Your task to perform on an android device: Go to privacy settings Image 0: 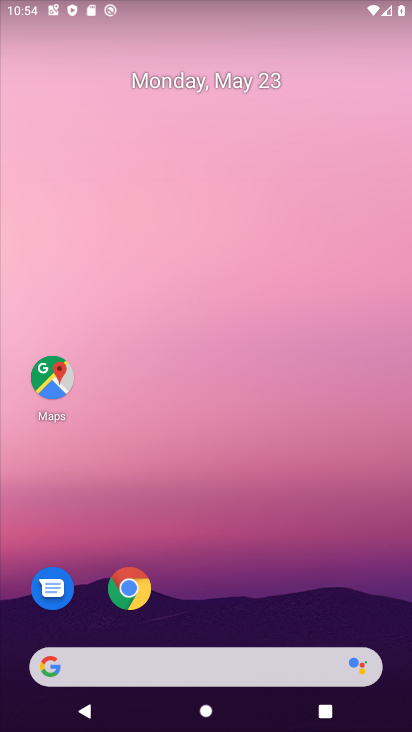
Step 0: drag from (258, 447) to (228, 141)
Your task to perform on an android device: Go to privacy settings Image 1: 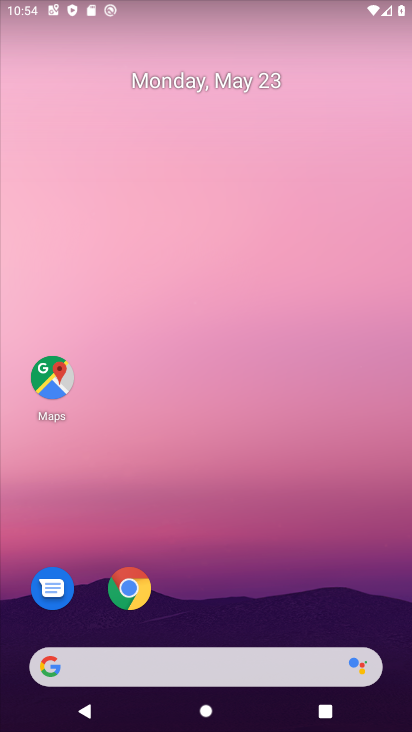
Step 1: drag from (272, 601) to (240, 169)
Your task to perform on an android device: Go to privacy settings Image 2: 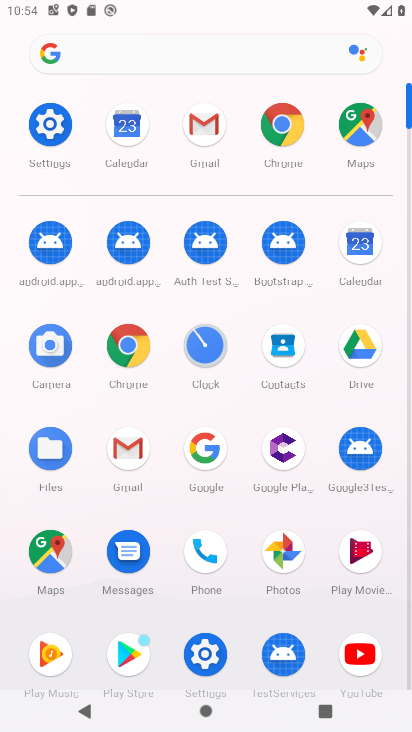
Step 2: click (49, 125)
Your task to perform on an android device: Go to privacy settings Image 3: 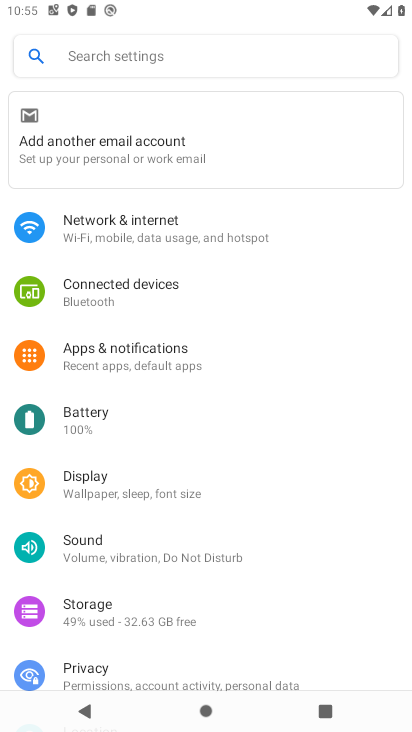
Step 3: drag from (224, 569) to (240, 179)
Your task to perform on an android device: Go to privacy settings Image 4: 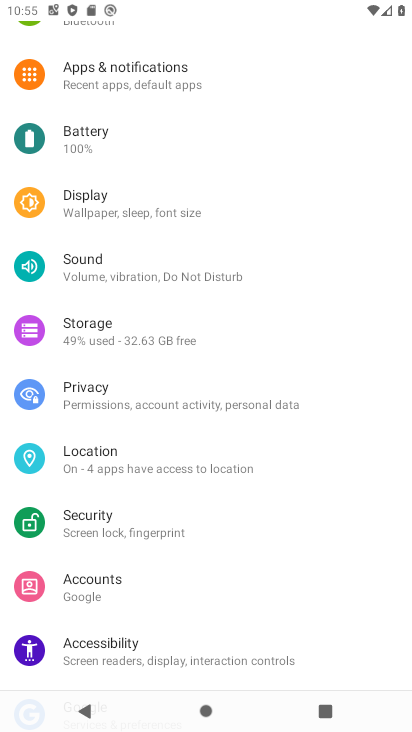
Step 4: click (95, 402)
Your task to perform on an android device: Go to privacy settings Image 5: 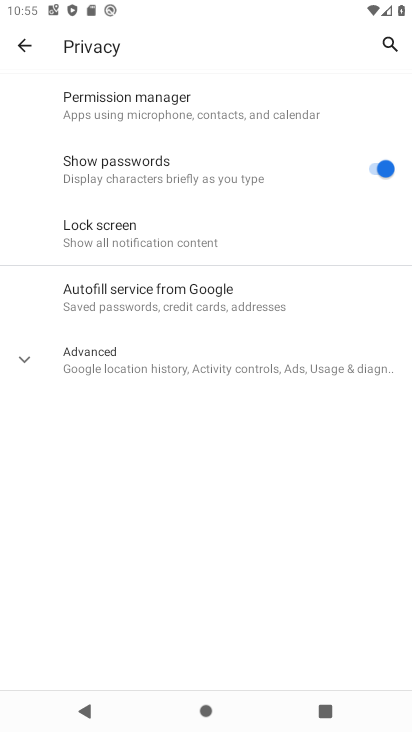
Step 5: task complete